Your task to perform on an android device: toggle location history Image 0: 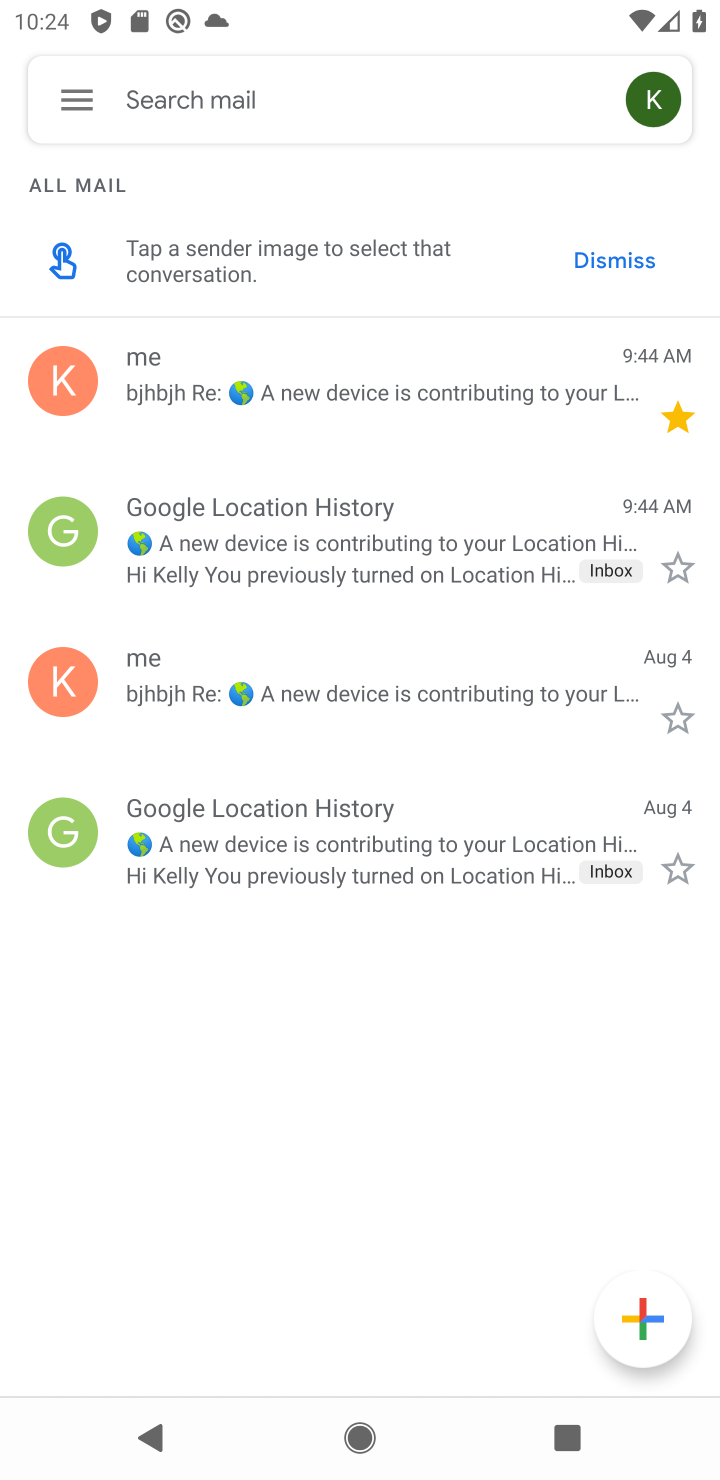
Step 0: press home button
Your task to perform on an android device: toggle location history Image 1: 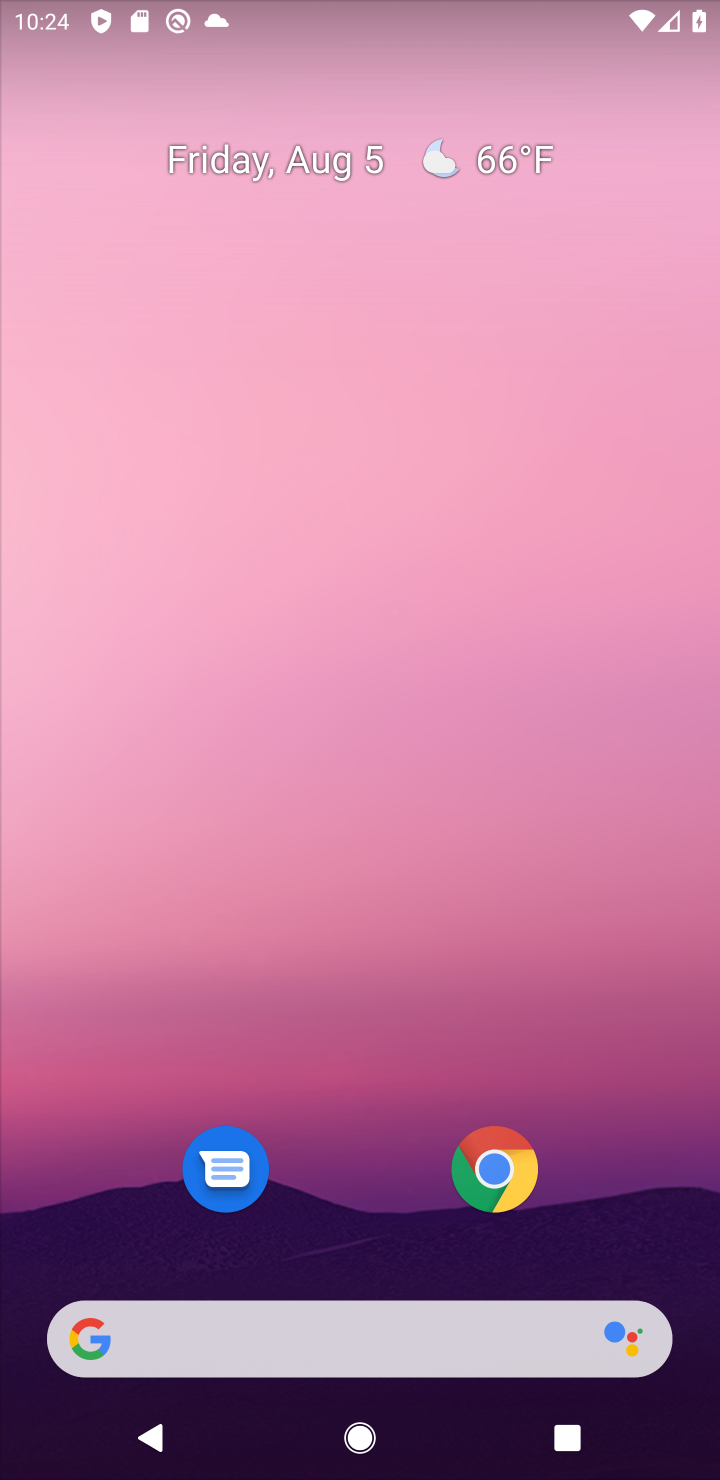
Step 1: drag from (614, 1248) to (534, 468)
Your task to perform on an android device: toggle location history Image 2: 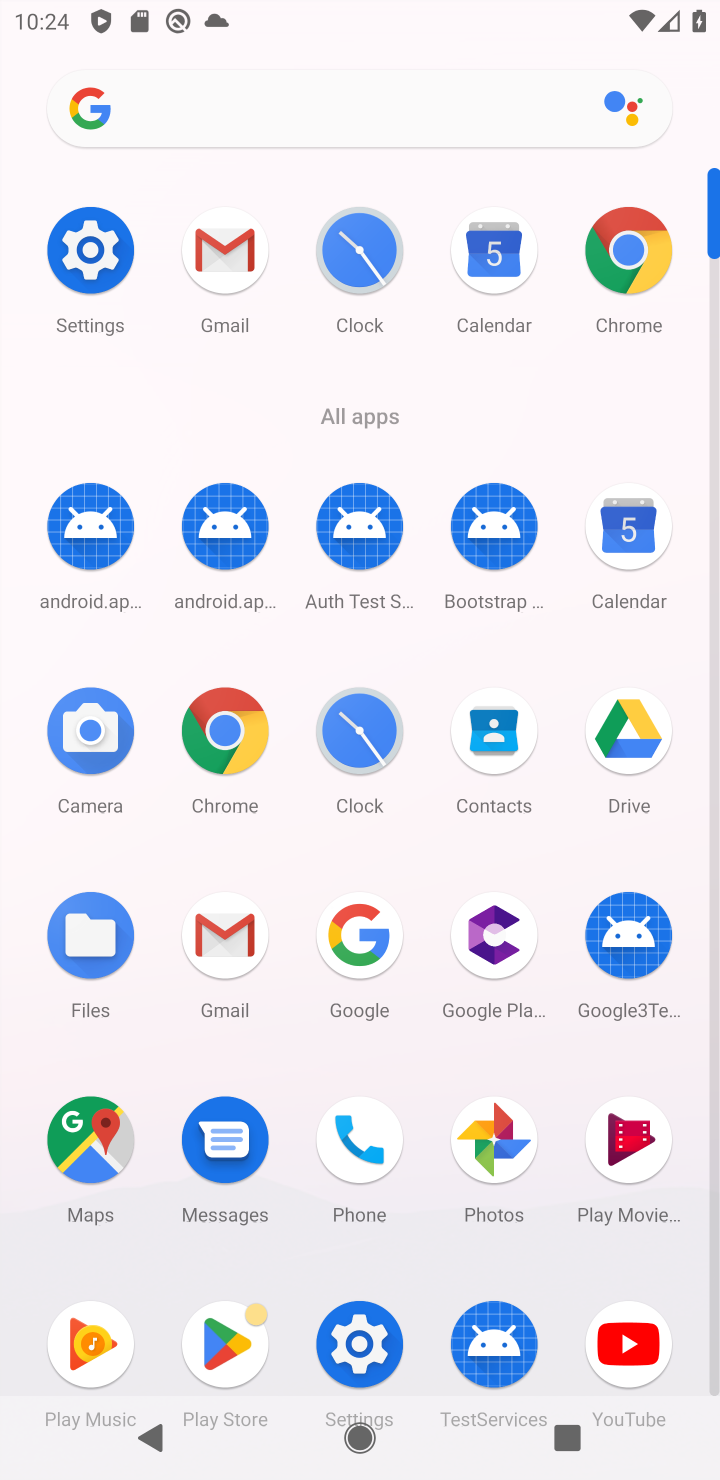
Step 2: click (89, 1135)
Your task to perform on an android device: toggle location history Image 3: 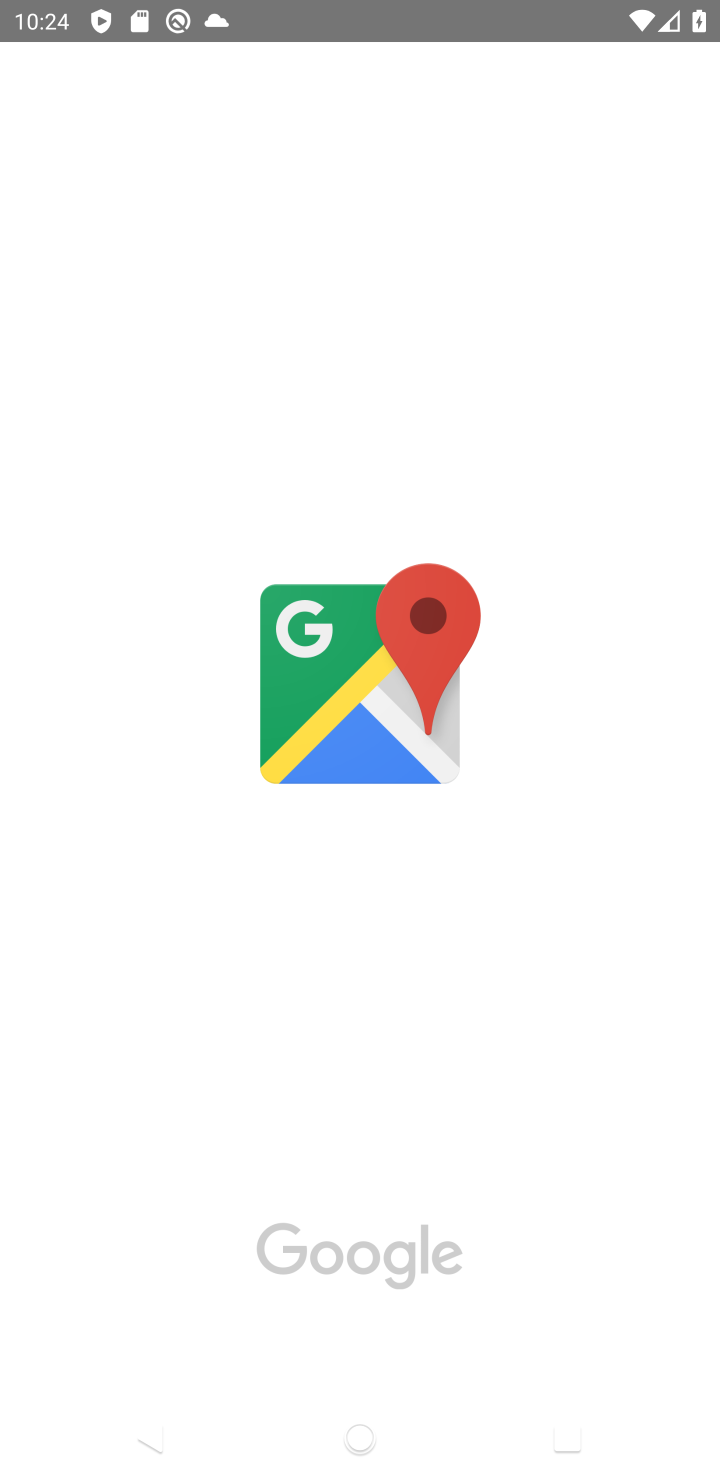
Step 3: task complete